Your task to perform on an android device: toggle notification dots Image 0: 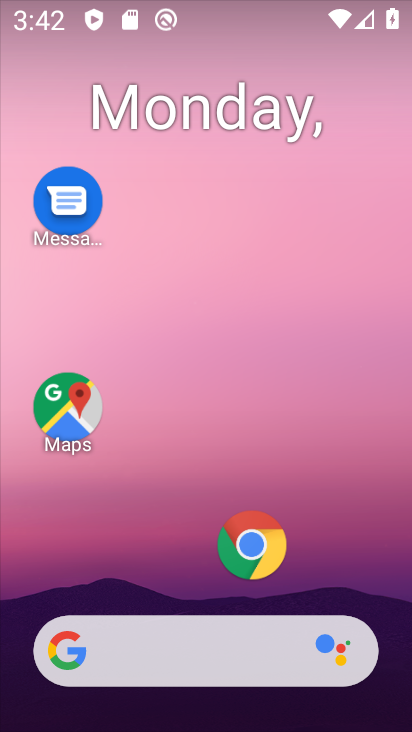
Step 0: drag from (207, 594) to (124, 174)
Your task to perform on an android device: toggle notification dots Image 1: 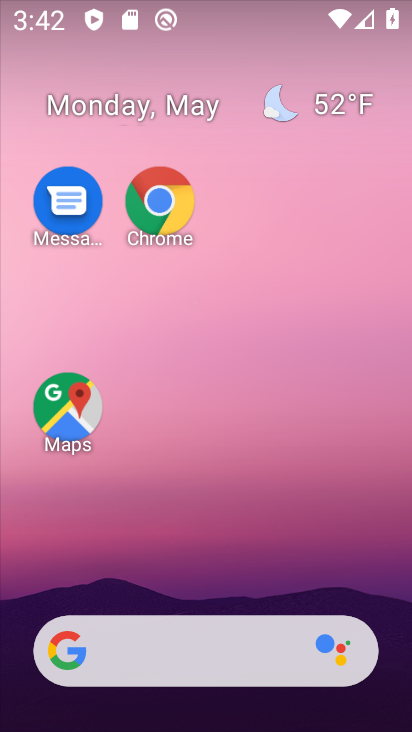
Step 1: click (225, 568)
Your task to perform on an android device: toggle notification dots Image 2: 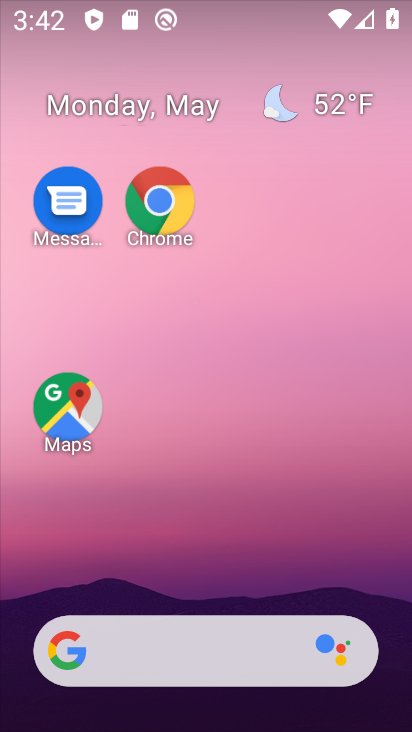
Step 2: drag from (225, 568) to (240, 63)
Your task to perform on an android device: toggle notification dots Image 3: 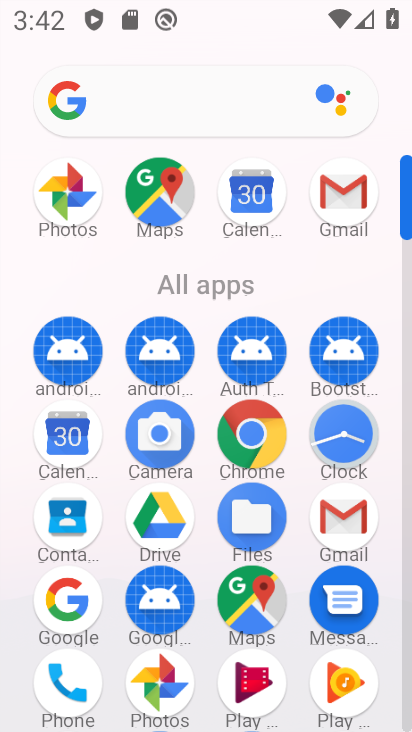
Step 3: drag from (107, 645) to (97, 316)
Your task to perform on an android device: toggle notification dots Image 4: 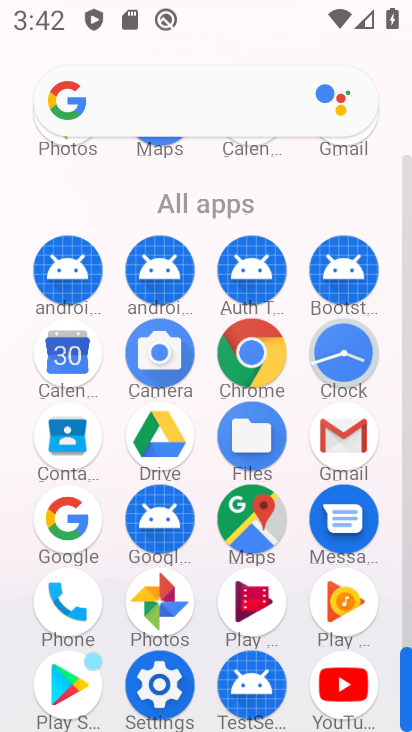
Step 4: click (140, 708)
Your task to perform on an android device: toggle notification dots Image 5: 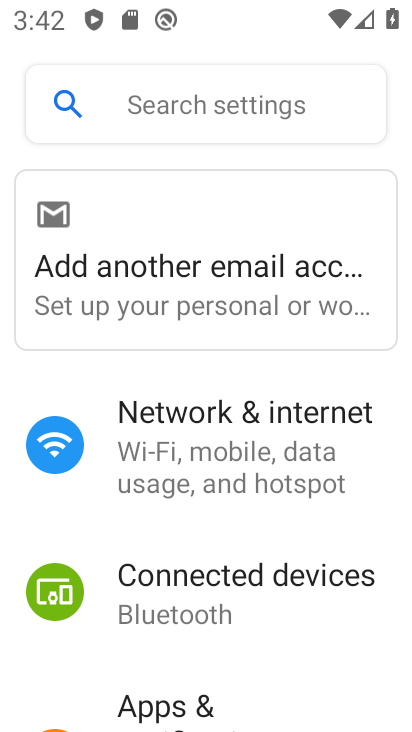
Step 5: click (172, 414)
Your task to perform on an android device: toggle notification dots Image 6: 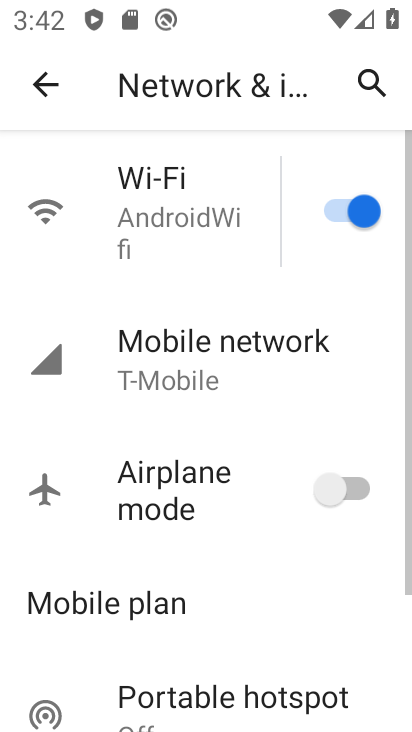
Step 6: click (47, 91)
Your task to perform on an android device: toggle notification dots Image 7: 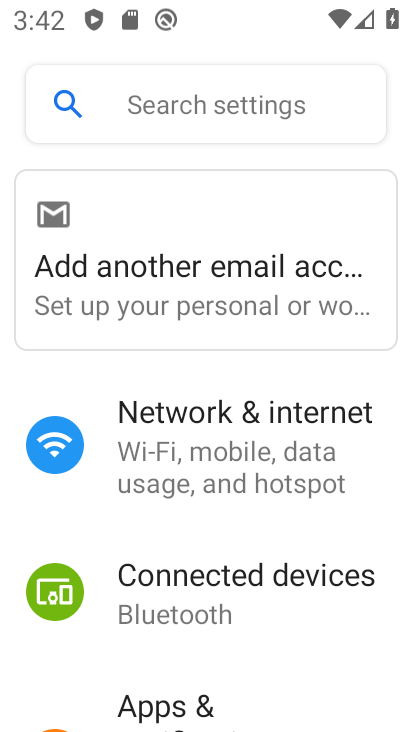
Step 7: click (169, 673)
Your task to perform on an android device: toggle notification dots Image 8: 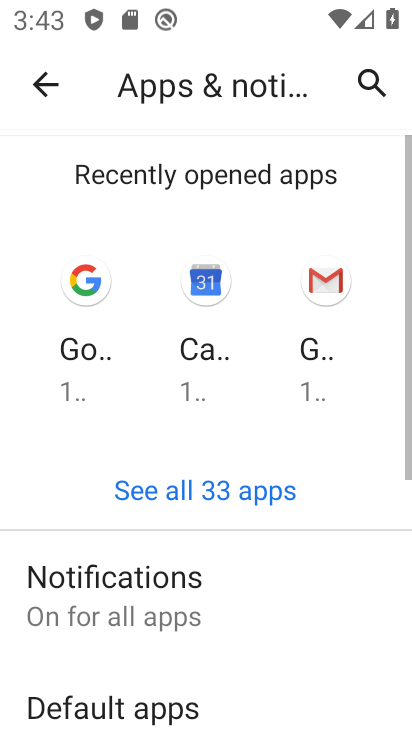
Step 8: click (137, 604)
Your task to perform on an android device: toggle notification dots Image 9: 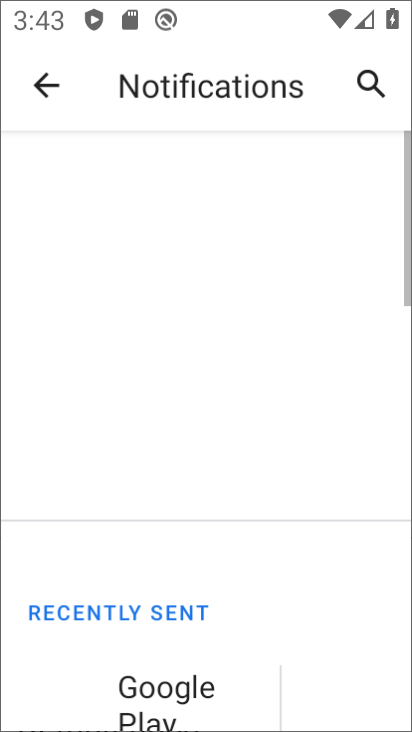
Step 9: drag from (137, 604) to (84, 145)
Your task to perform on an android device: toggle notification dots Image 10: 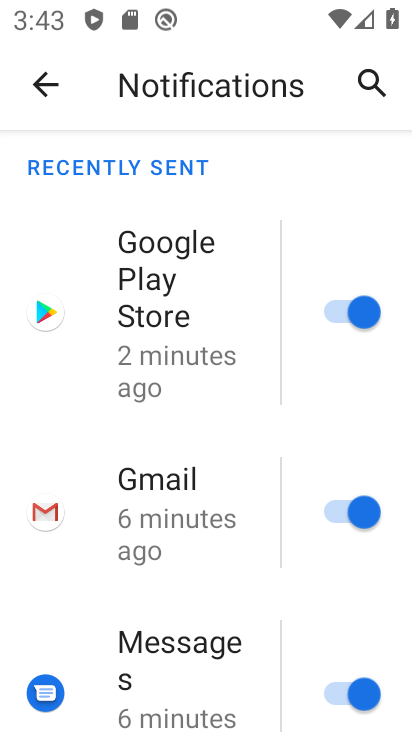
Step 10: drag from (169, 573) to (107, 24)
Your task to perform on an android device: toggle notification dots Image 11: 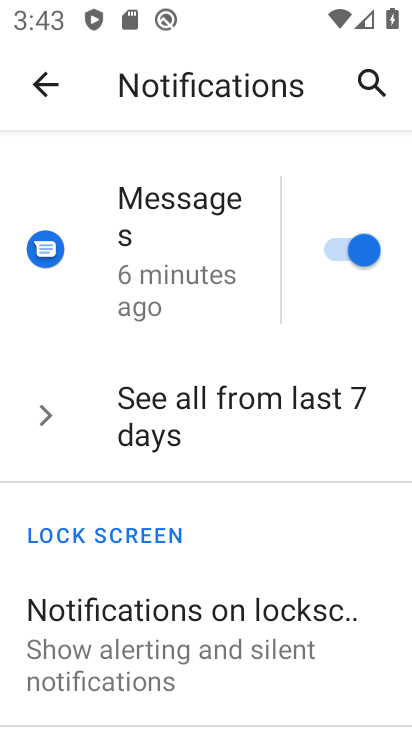
Step 11: drag from (189, 655) to (111, 143)
Your task to perform on an android device: toggle notification dots Image 12: 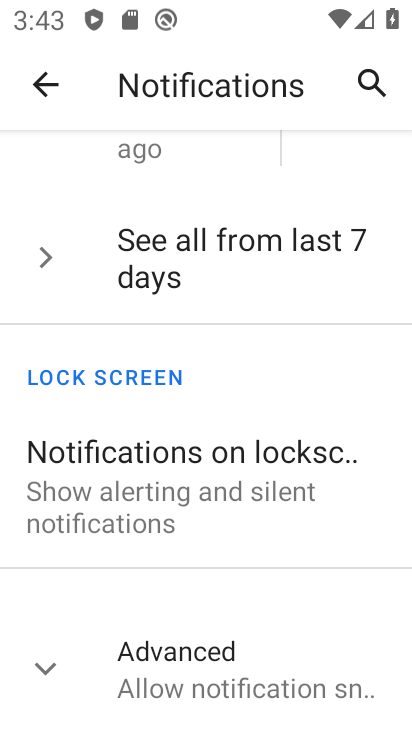
Step 12: click (226, 689)
Your task to perform on an android device: toggle notification dots Image 13: 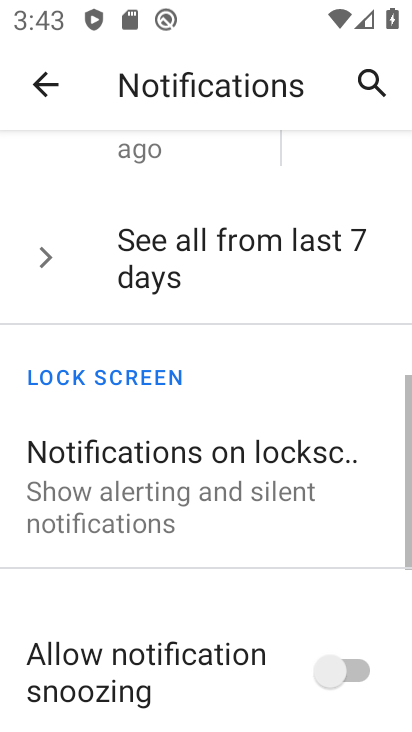
Step 13: drag from (226, 689) to (185, 396)
Your task to perform on an android device: toggle notification dots Image 14: 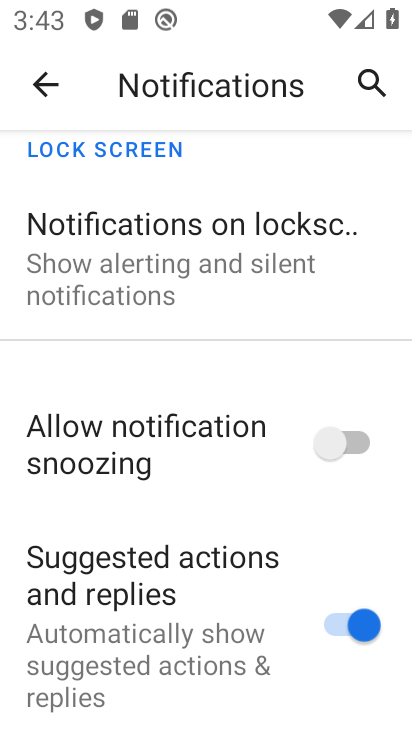
Step 14: drag from (267, 608) to (253, 322)
Your task to perform on an android device: toggle notification dots Image 15: 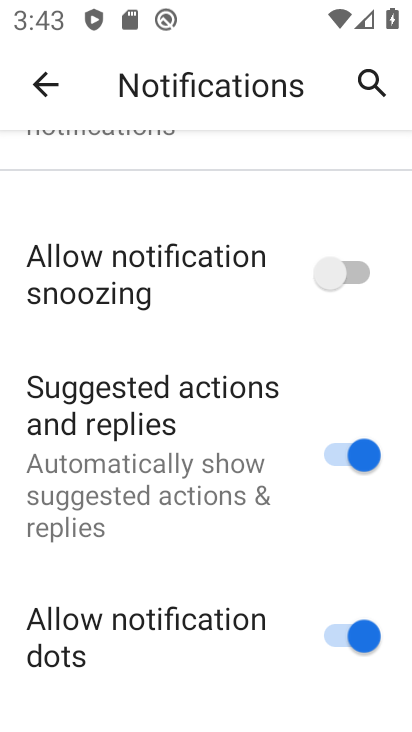
Step 15: click (347, 625)
Your task to perform on an android device: toggle notification dots Image 16: 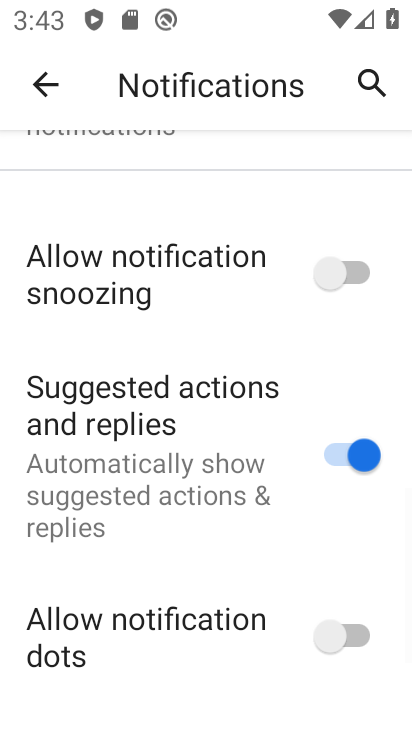
Step 16: task complete